Your task to perform on an android device: turn on location history Image 0: 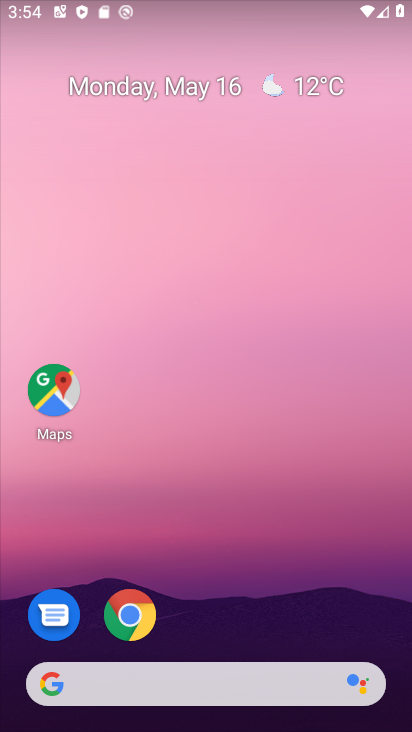
Step 0: drag from (202, 727) to (202, 236)
Your task to perform on an android device: turn on location history Image 1: 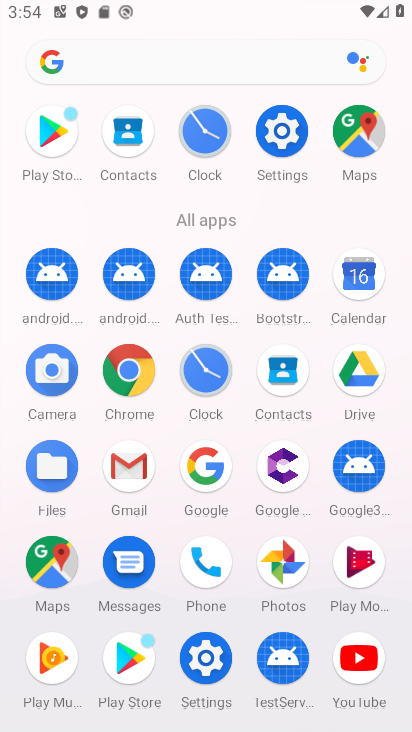
Step 1: click (289, 130)
Your task to perform on an android device: turn on location history Image 2: 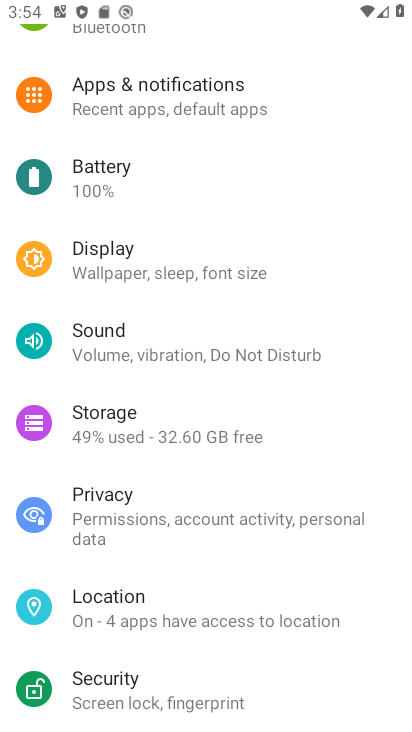
Step 2: click (124, 603)
Your task to perform on an android device: turn on location history Image 3: 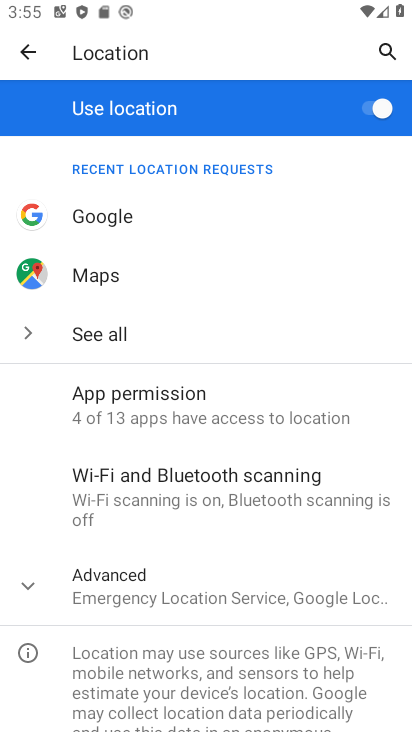
Step 3: click (114, 575)
Your task to perform on an android device: turn on location history Image 4: 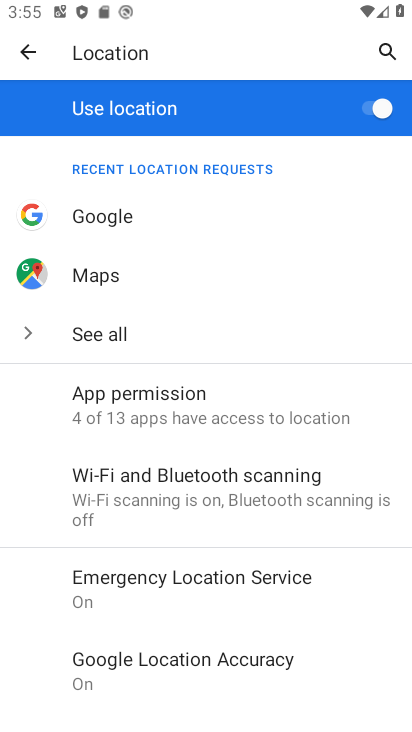
Step 4: drag from (167, 641) to (165, 297)
Your task to perform on an android device: turn on location history Image 5: 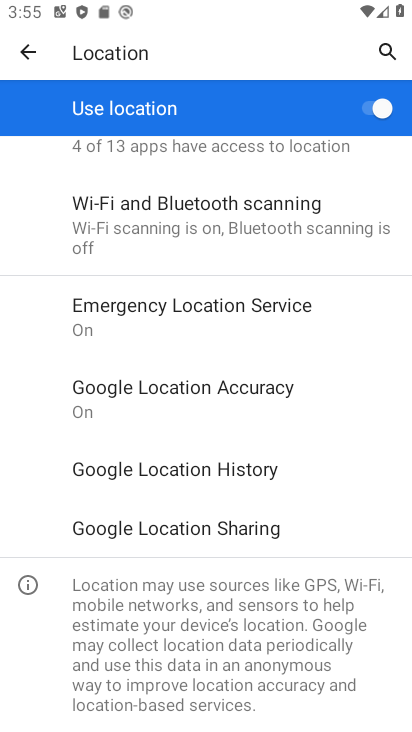
Step 5: click (180, 467)
Your task to perform on an android device: turn on location history Image 6: 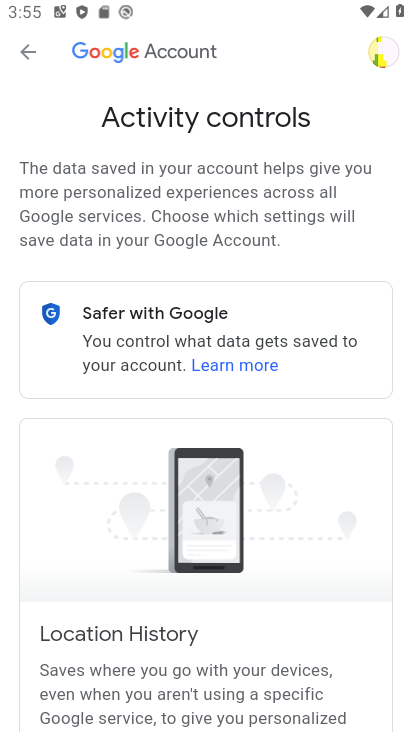
Step 6: drag from (209, 640) to (174, 181)
Your task to perform on an android device: turn on location history Image 7: 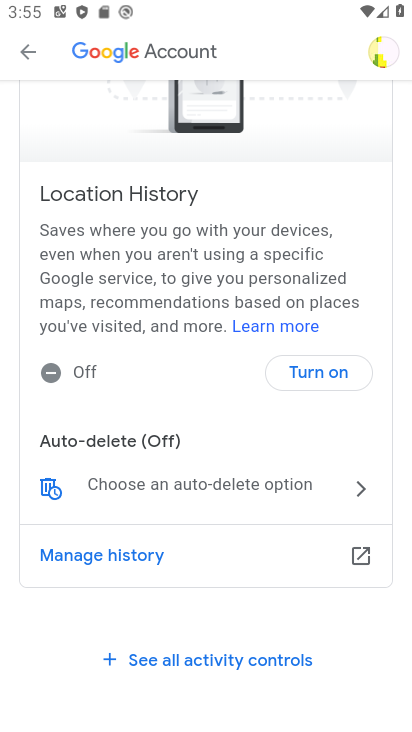
Step 7: click (318, 374)
Your task to perform on an android device: turn on location history Image 8: 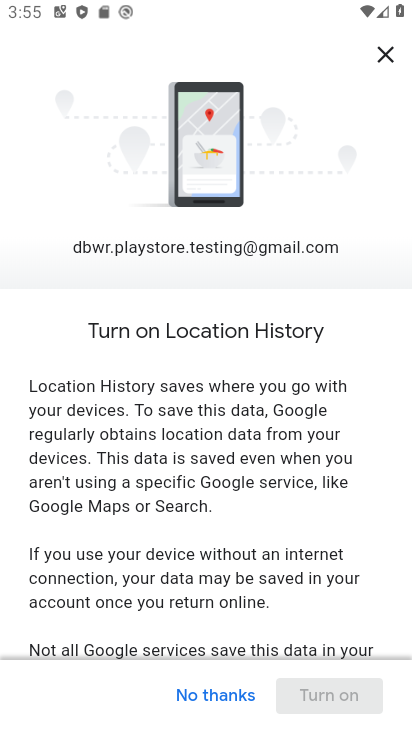
Step 8: drag from (274, 627) to (252, 172)
Your task to perform on an android device: turn on location history Image 9: 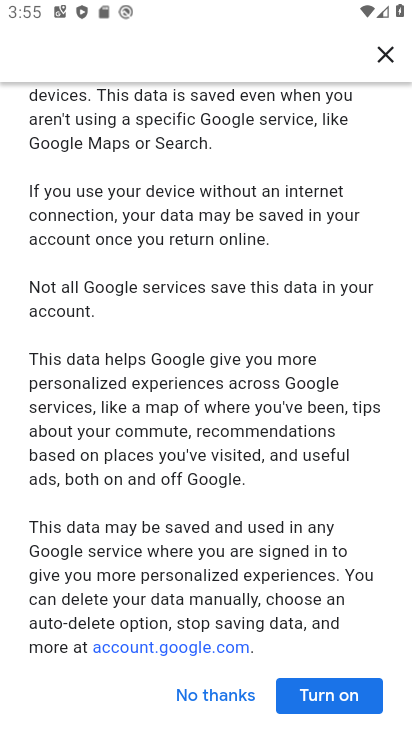
Step 9: click (328, 696)
Your task to perform on an android device: turn on location history Image 10: 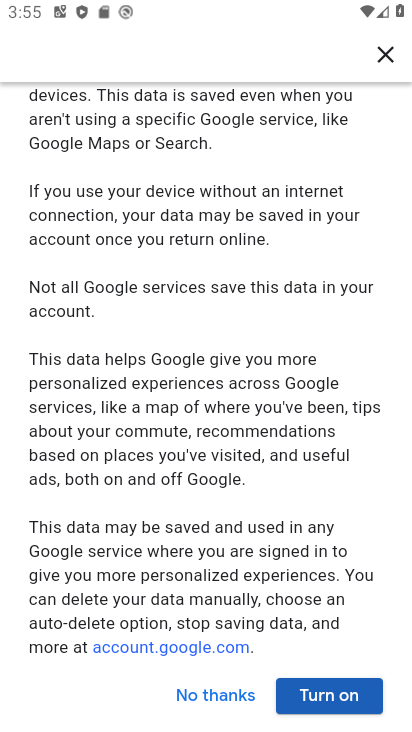
Step 10: click (327, 698)
Your task to perform on an android device: turn on location history Image 11: 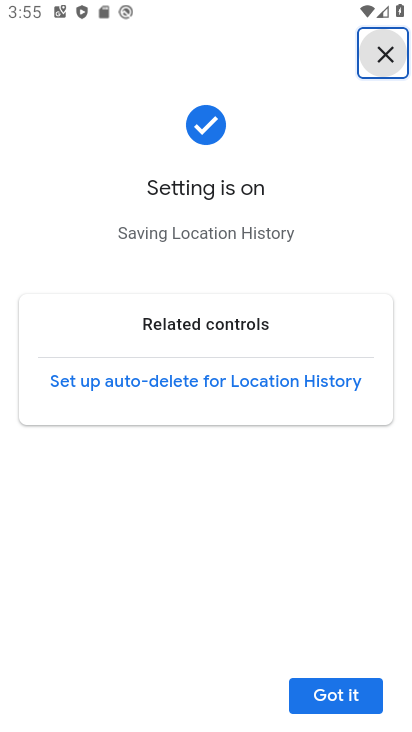
Step 11: task complete